Your task to perform on an android device: find snoozed emails in the gmail app Image 0: 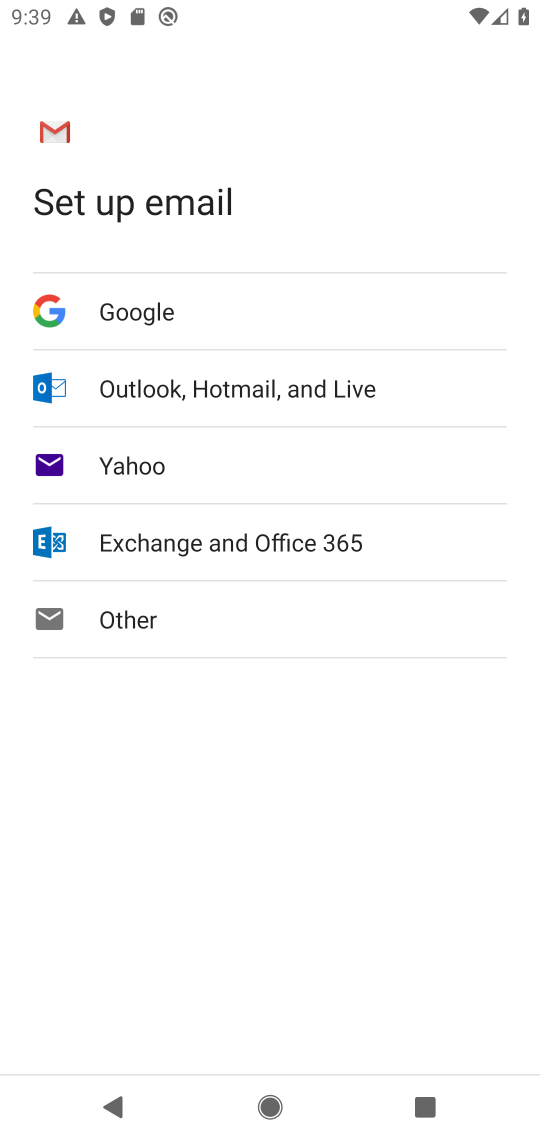
Step 0: press home button
Your task to perform on an android device: find snoozed emails in the gmail app Image 1: 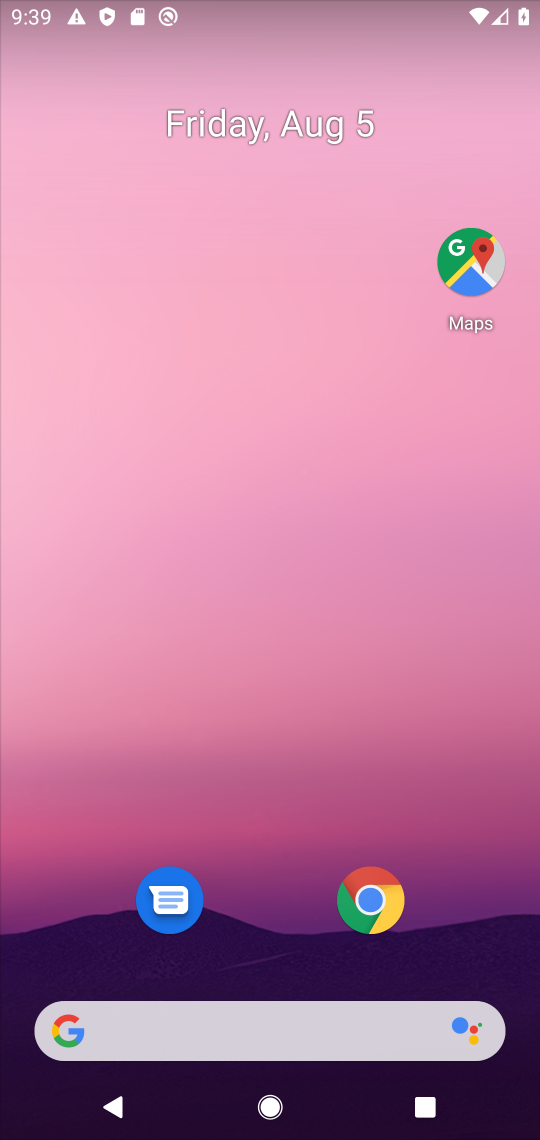
Step 1: drag from (493, 972) to (263, 156)
Your task to perform on an android device: find snoozed emails in the gmail app Image 2: 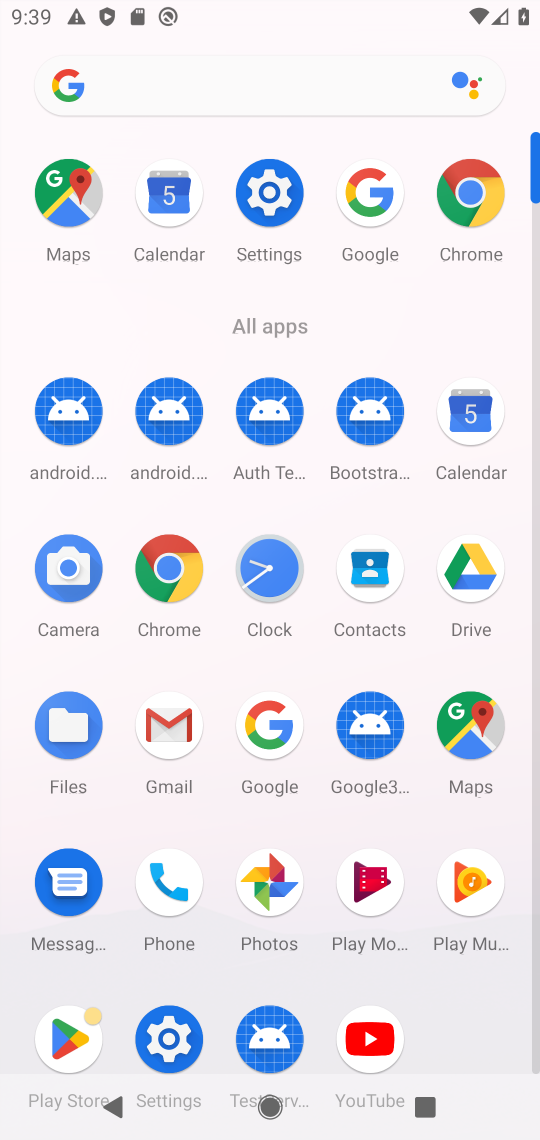
Step 2: click (173, 758)
Your task to perform on an android device: find snoozed emails in the gmail app Image 3: 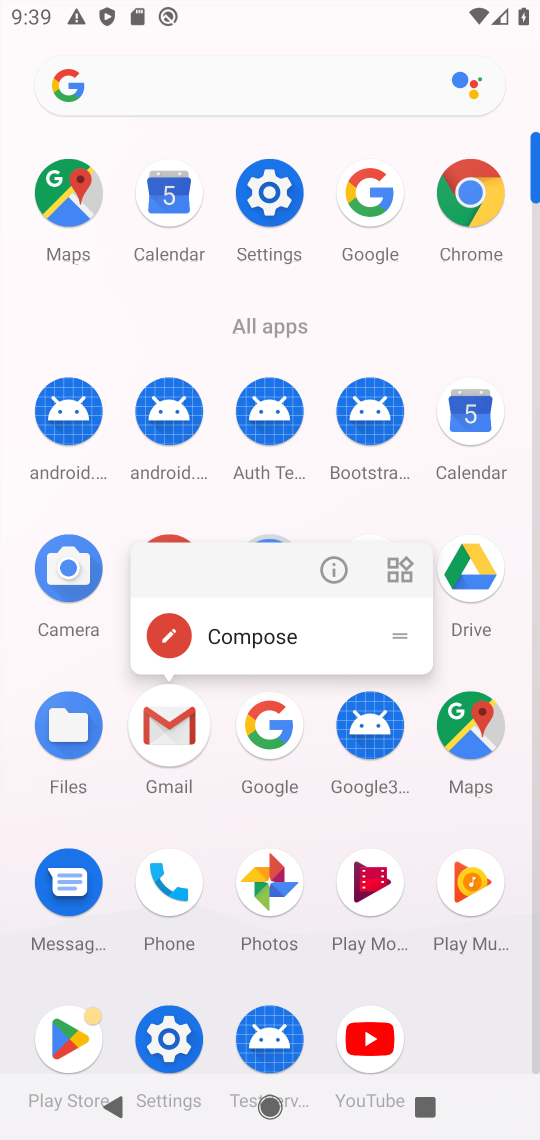
Step 3: click (170, 743)
Your task to perform on an android device: find snoozed emails in the gmail app Image 4: 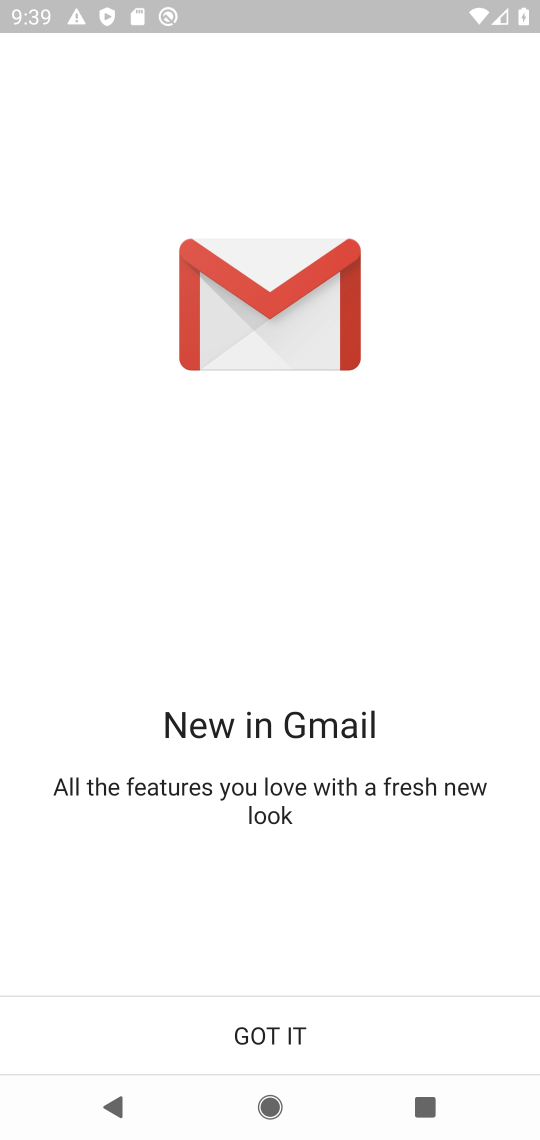
Step 4: click (340, 1010)
Your task to perform on an android device: find snoozed emails in the gmail app Image 5: 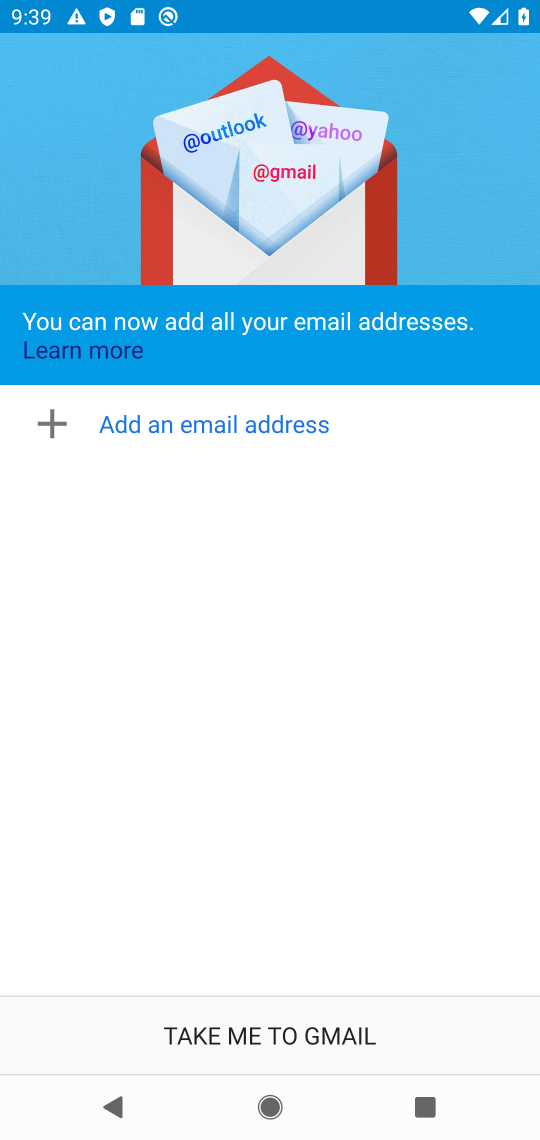
Step 5: click (355, 1035)
Your task to perform on an android device: find snoozed emails in the gmail app Image 6: 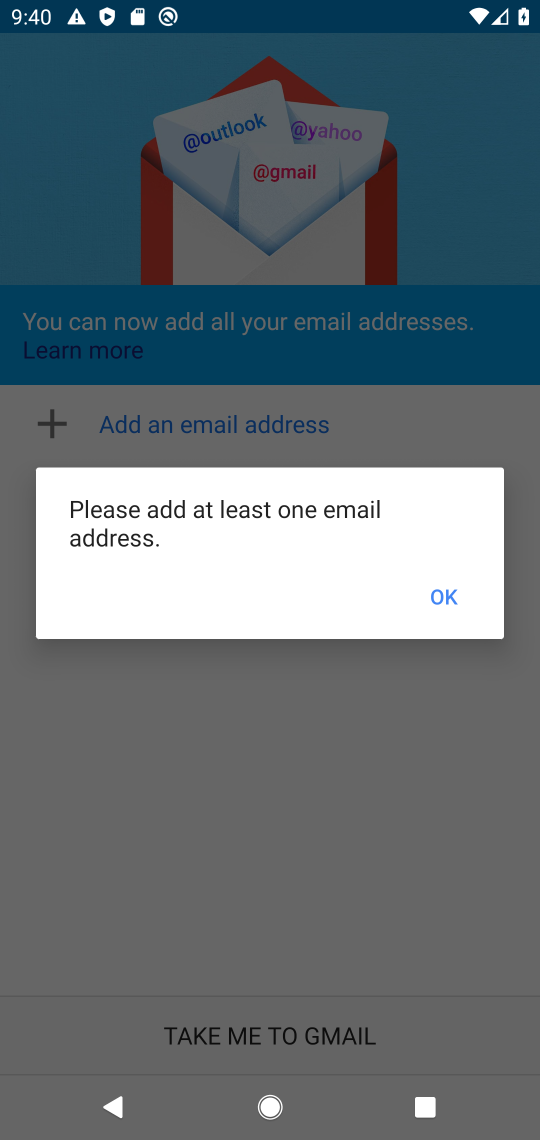
Step 6: task complete